Your task to perform on an android device: snooze an email in the gmail app Image 0: 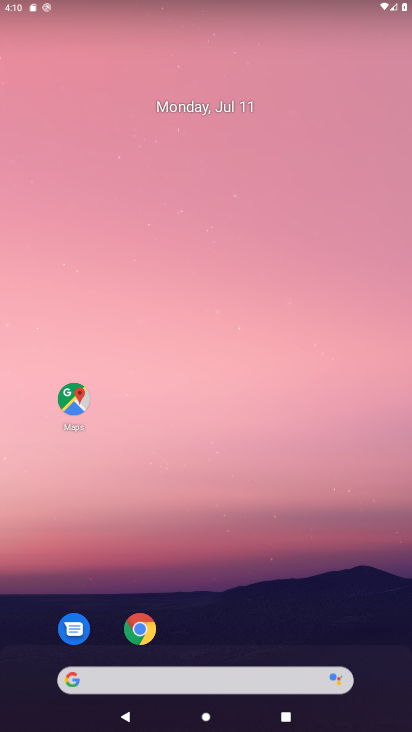
Step 0: drag from (242, 659) to (333, 83)
Your task to perform on an android device: snooze an email in the gmail app Image 1: 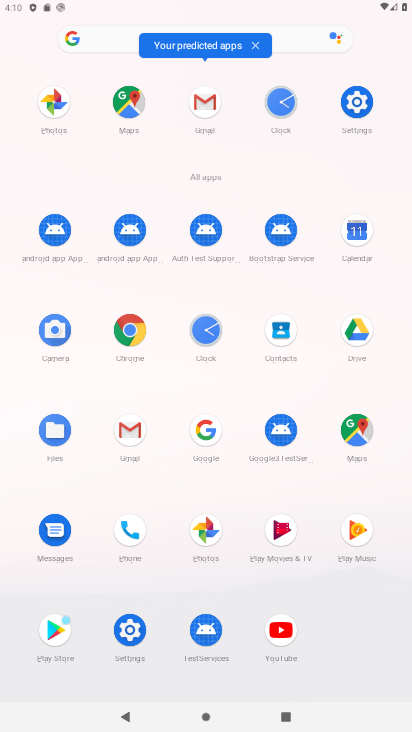
Step 1: click (128, 436)
Your task to perform on an android device: snooze an email in the gmail app Image 2: 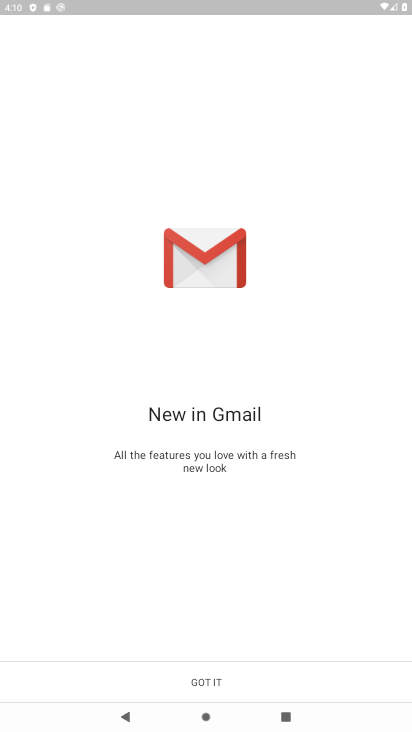
Step 2: click (228, 682)
Your task to perform on an android device: snooze an email in the gmail app Image 3: 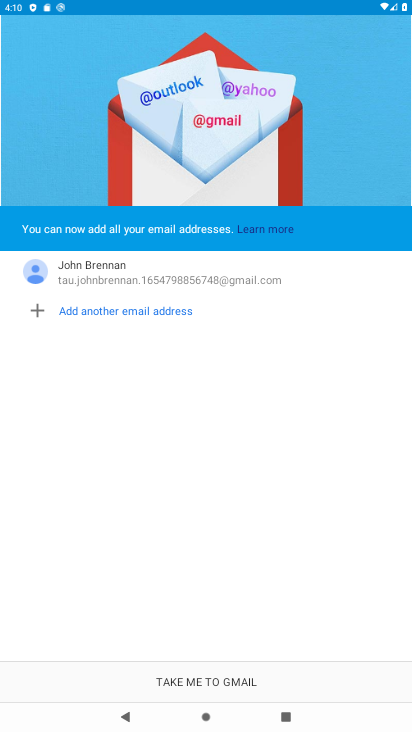
Step 3: click (232, 680)
Your task to perform on an android device: snooze an email in the gmail app Image 4: 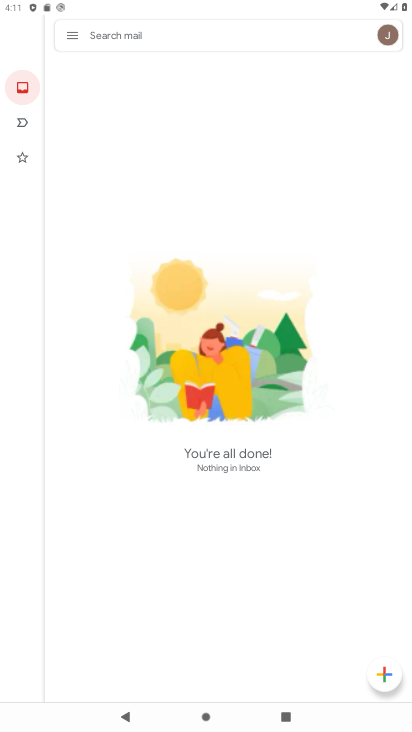
Step 4: task complete